Your task to perform on an android device: add a label to a message in the gmail app Image 0: 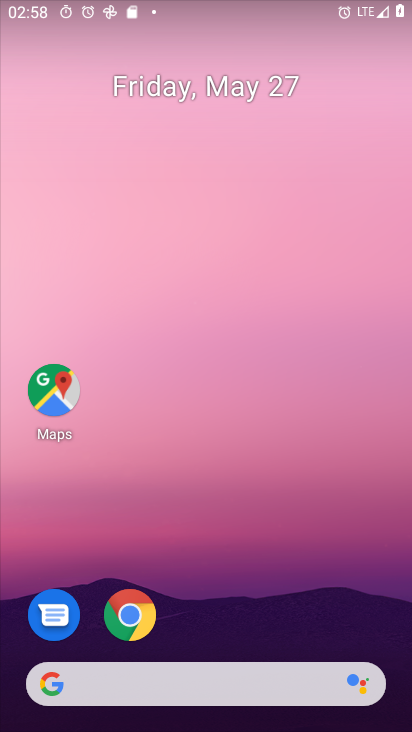
Step 0: drag from (376, 639) to (376, 378)
Your task to perform on an android device: add a label to a message in the gmail app Image 1: 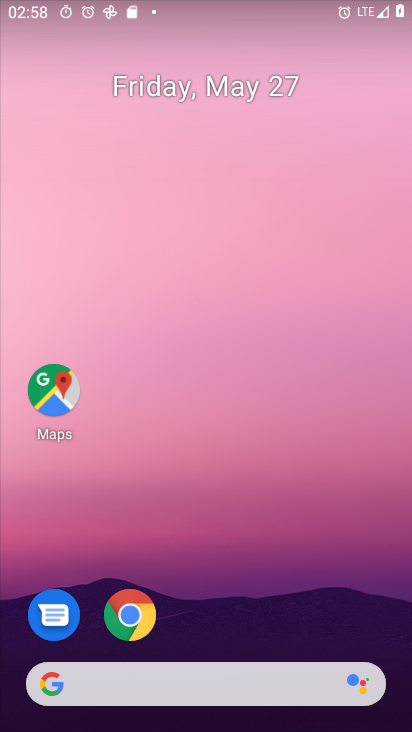
Step 1: drag from (351, 589) to (371, 171)
Your task to perform on an android device: add a label to a message in the gmail app Image 2: 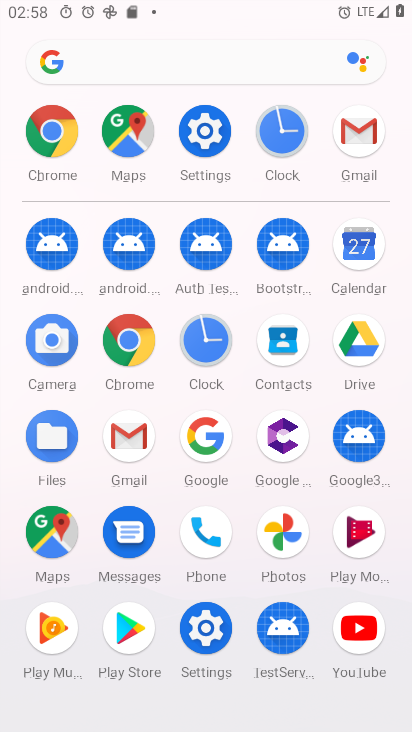
Step 2: click (136, 448)
Your task to perform on an android device: add a label to a message in the gmail app Image 3: 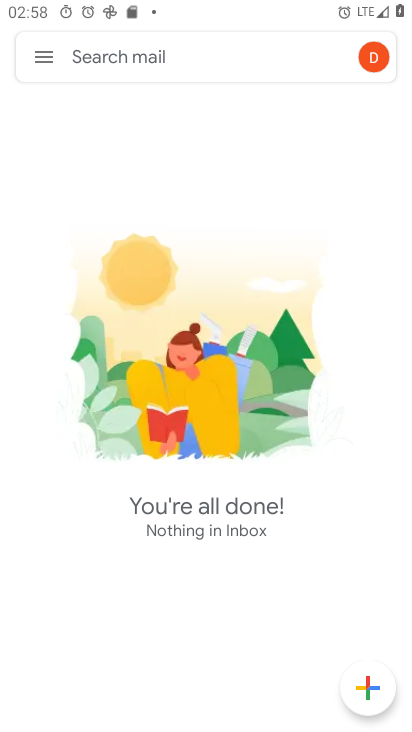
Step 3: task complete